Your task to perform on an android device: Search for sushi restaurants on Maps Image 0: 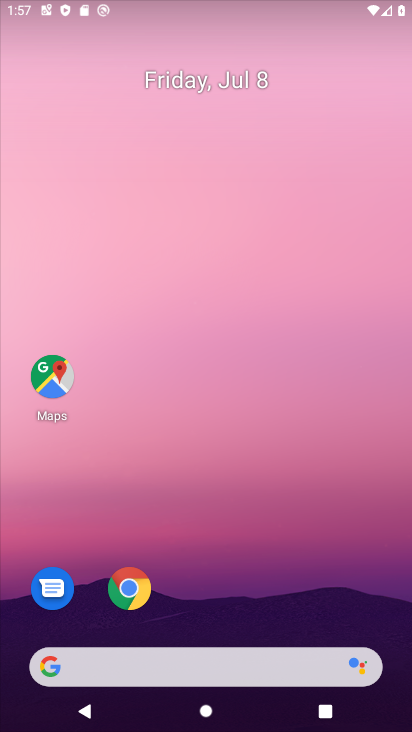
Step 0: click (235, 173)
Your task to perform on an android device: Search for sushi restaurants on Maps Image 1: 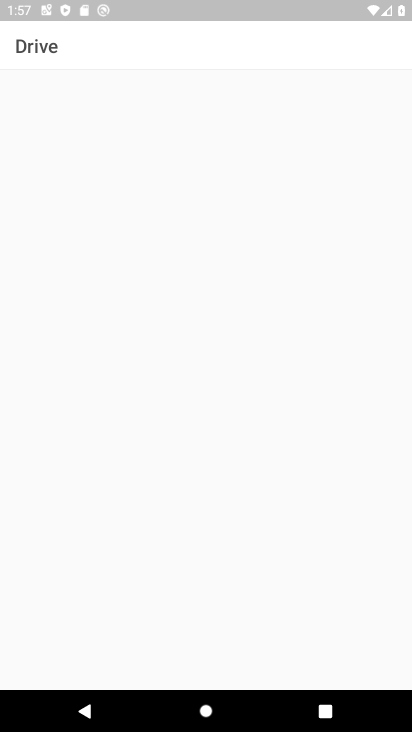
Step 1: press home button
Your task to perform on an android device: Search for sushi restaurants on Maps Image 2: 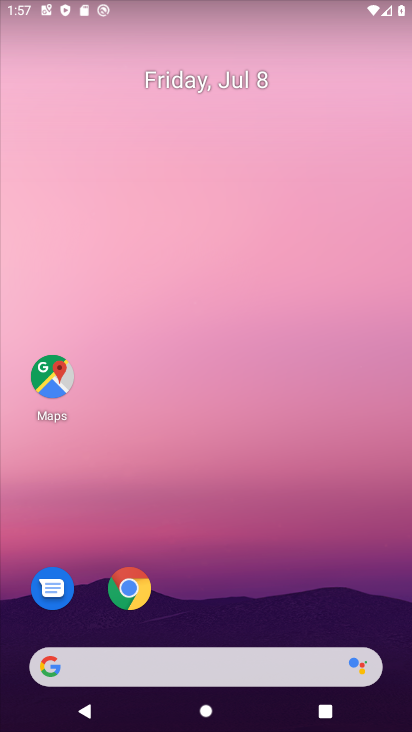
Step 2: drag from (243, 507) to (264, 52)
Your task to perform on an android device: Search for sushi restaurants on Maps Image 3: 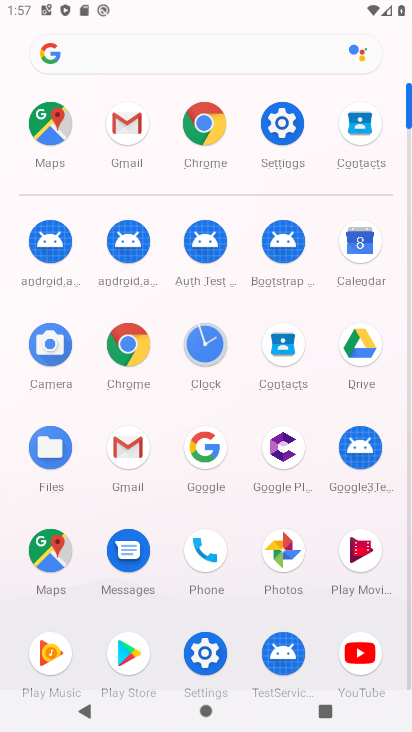
Step 3: click (50, 135)
Your task to perform on an android device: Search for sushi restaurants on Maps Image 4: 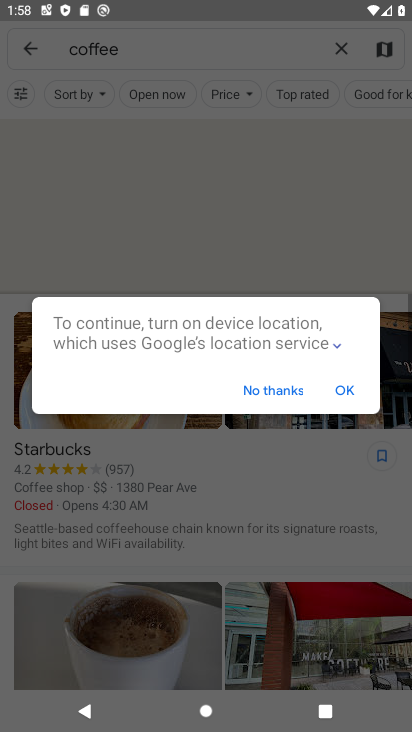
Step 4: click (344, 49)
Your task to perform on an android device: Search for sushi restaurants on Maps Image 5: 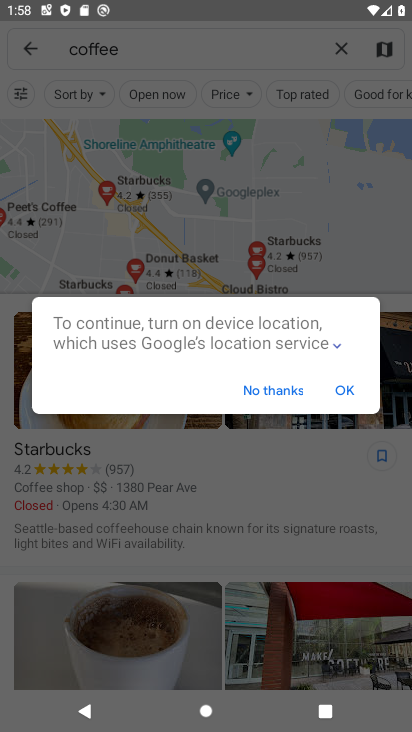
Step 5: click (267, 392)
Your task to perform on an android device: Search for sushi restaurants on Maps Image 6: 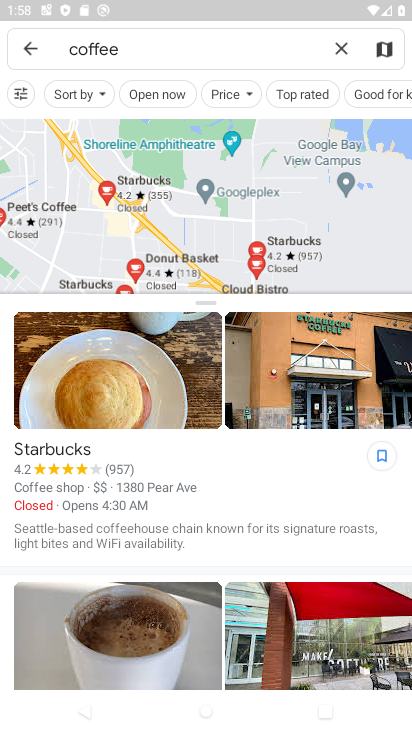
Step 6: click (342, 43)
Your task to perform on an android device: Search for sushi restaurants on Maps Image 7: 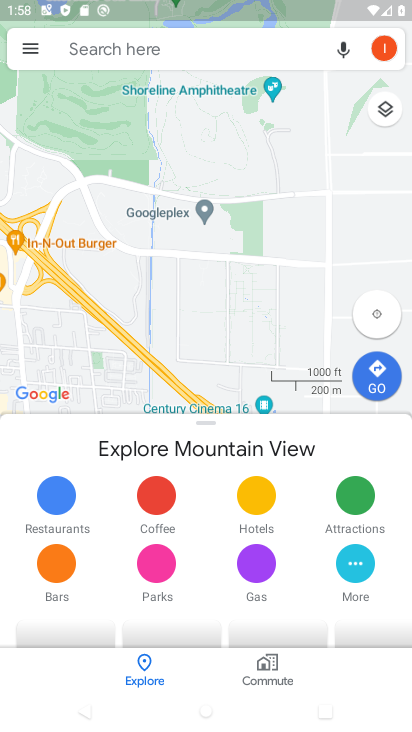
Step 7: click (147, 44)
Your task to perform on an android device: Search for sushi restaurants on Maps Image 8: 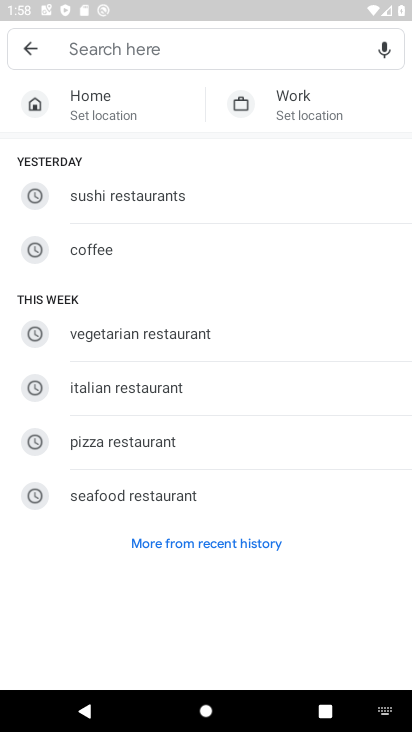
Step 8: click (123, 198)
Your task to perform on an android device: Search for sushi restaurants on Maps Image 9: 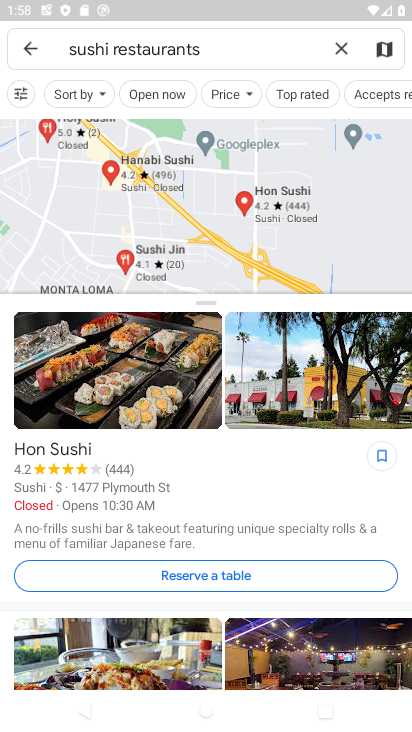
Step 9: task complete